Your task to perform on an android device: turn off priority inbox in the gmail app Image 0: 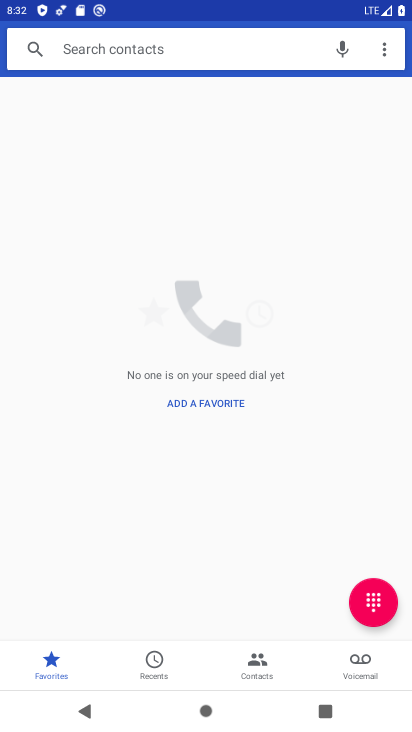
Step 0: press home button
Your task to perform on an android device: turn off priority inbox in the gmail app Image 1: 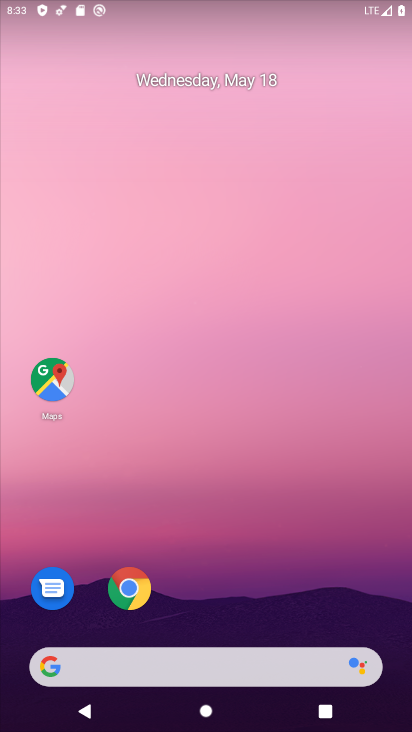
Step 1: drag from (345, 631) to (270, 8)
Your task to perform on an android device: turn off priority inbox in the gmail app Image 2: 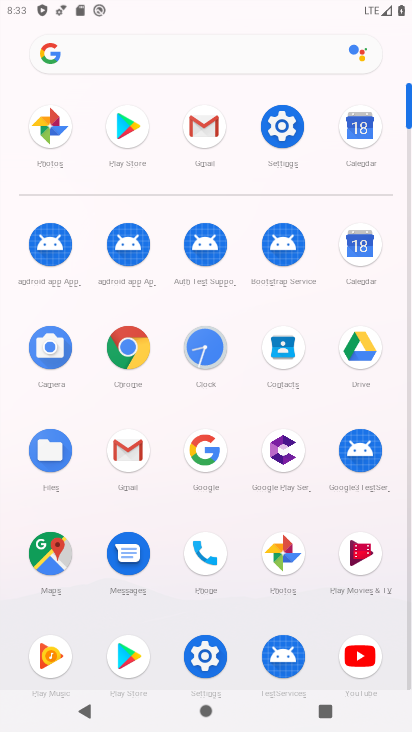
Step 2: click (205, 125)
Your task to perform on an android device: turn off priority inbox in the gmail app Image 3: 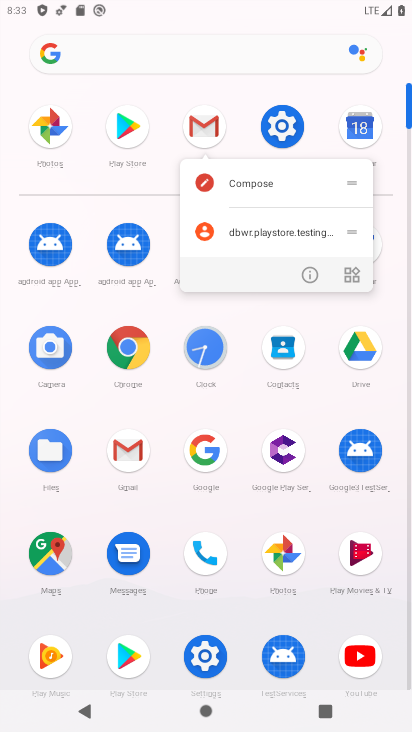
Step 3: click (193, 123)
Your task to perform on an android device: turn off priority inbox in the gmail app Image 4: 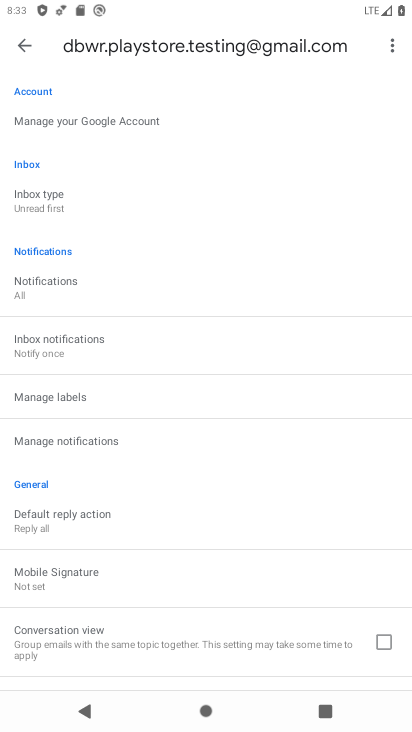
Step 4: click (37, 217)
Your task to perform on an android device: turn off priority inbox in the gmail app Image 5: 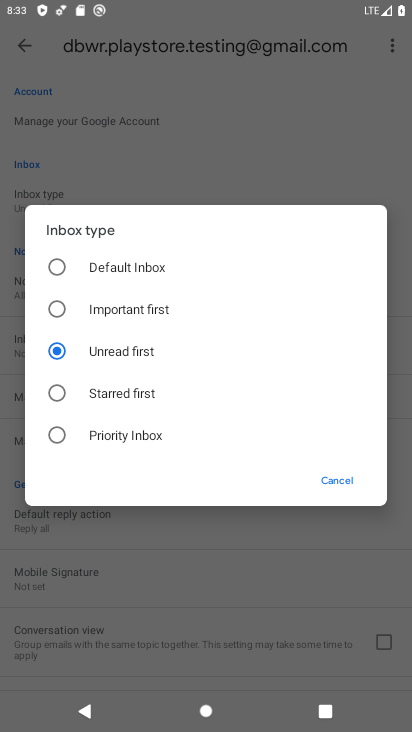
Step 5: task complete